Your task to perform on an android device: toggle translation in the chrome app Image 0: 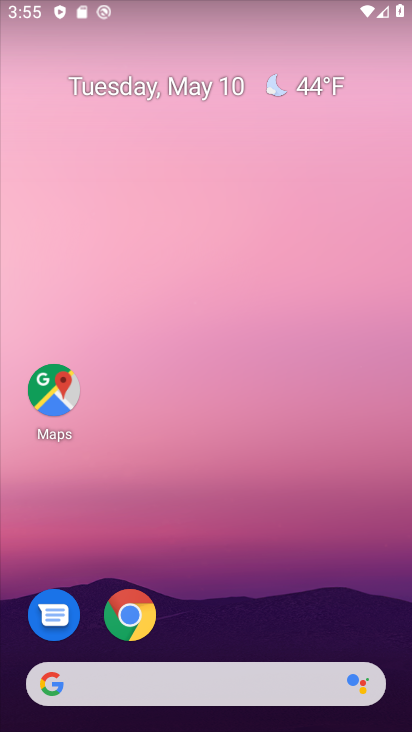
Step 0: click (127, 616)
Your task to perform on an android device: toggle translation in the chrome app Image 1: 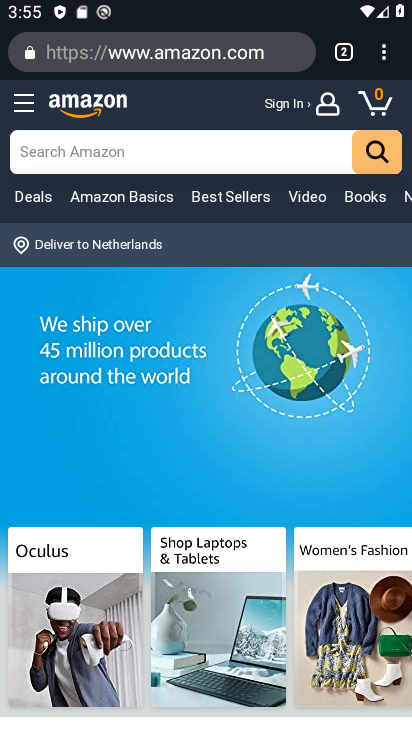
Step 1: click (385, 59)
Your task to perform on an android device: toggle translation in the chrome app Image 2: 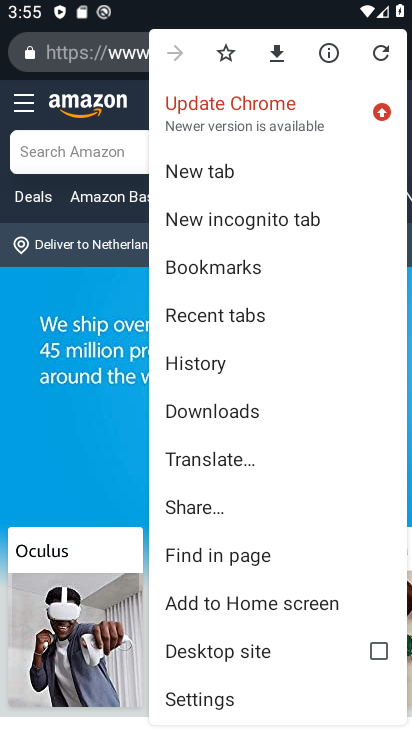
Step 2: click (205, 696)
Your task to perform on an android device: toggle translation in the chrome app Image 3: 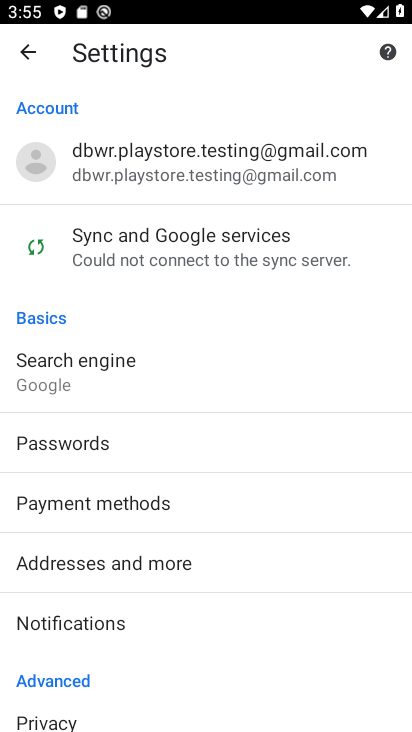
Step 3: drag from (211, 669) to (207, 451)
Your task to perform on an android device: toggle translation in the chrome app Image 4: 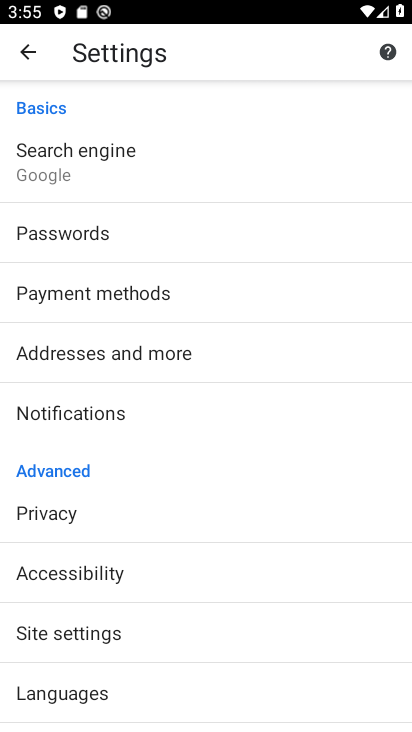
Step 4: click (105, 690)
Your task to perform on an android device: toggle translation in the chrome app Image 5: 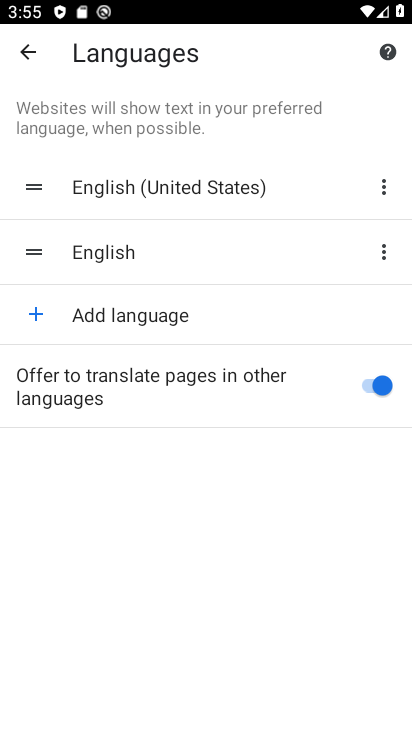
Step 5: click (368, 382)
Your task to perform on an android device: toggle translation in the chrome app Image 6: 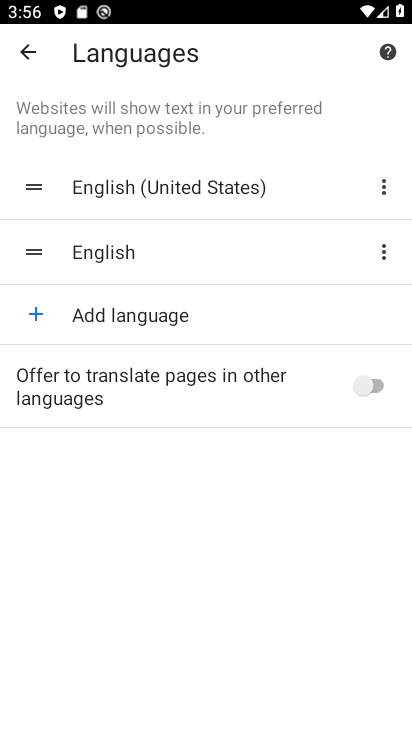
Step 6: task complete